Your task to perform on an android device: turn notification dots off Image 0: 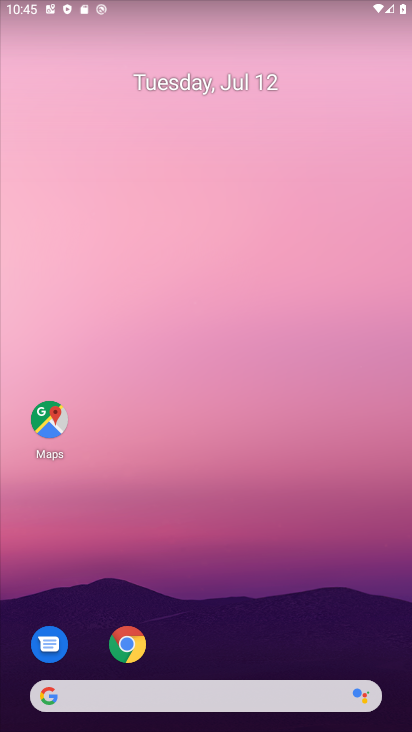
Step 0: drag from (235, 654) to (252, 22)
Your task to perform on an android device: turn notification dots off Image 1: 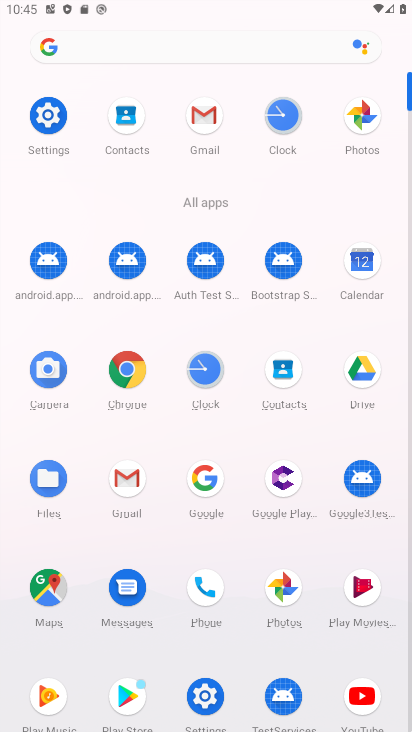
Step 1: click (47, 109)
Your task to perform on an android device: turn notification dots off Image 2: 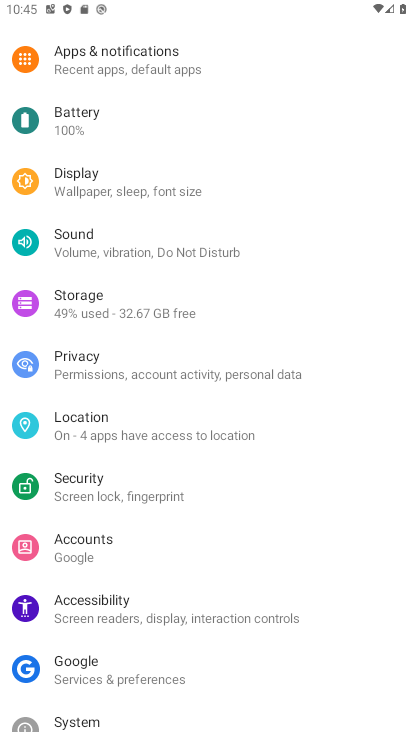
Step 2: click (185, 62)
Your task to perform on an android device: turn notification dots off Image 3: 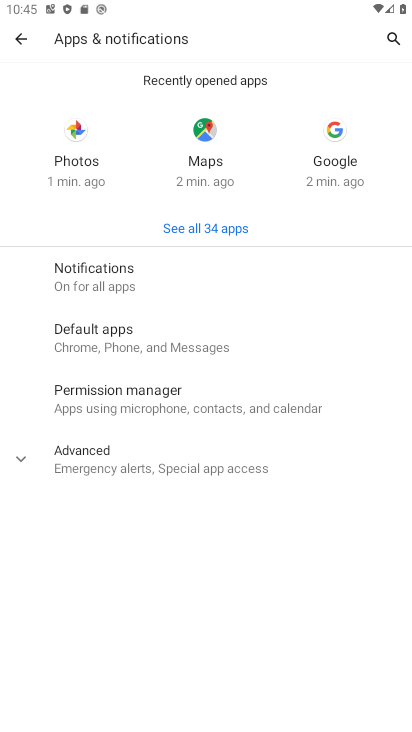
Step 3: click (151, 276)
Your task to perform on an android device: turn notification dots off Image 4: 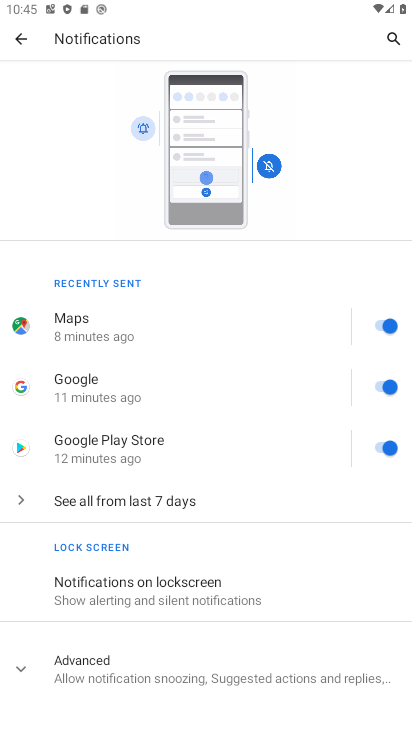
Step 4: drag from (203, 622) to (199, 227)
Your task to perform on an android device: turn notification dots off Image 5: 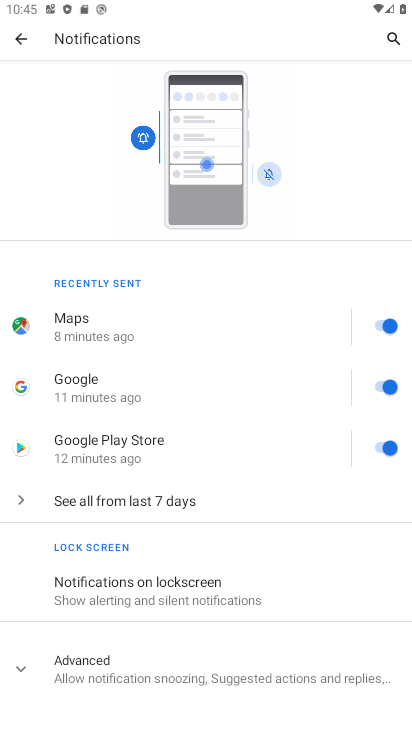
Step 5: click (22, 662)
Your task to perform on an android device: turn notification dots off Image 6: 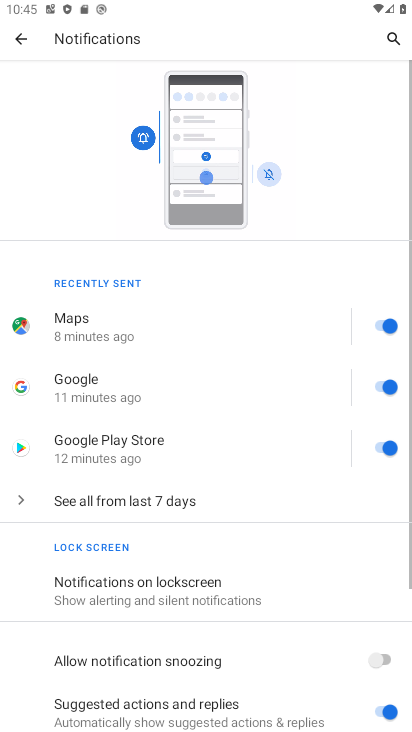
Step 6: drag from (205, 684) to (199, 167)
Your task to perform on an android device: turn notification dots off Image 7: 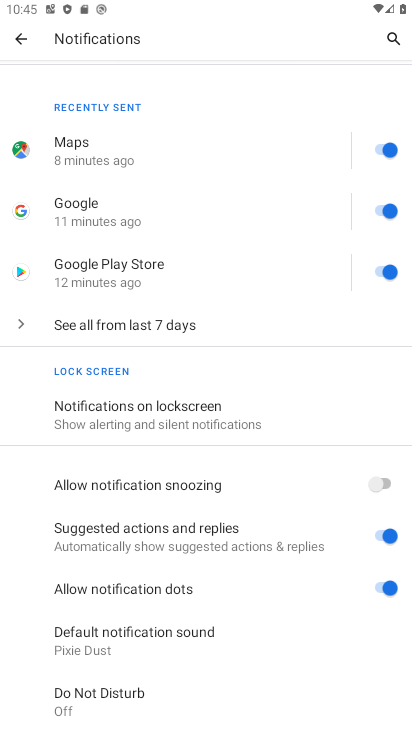
Step 7: click (381, 585)
Your task to perform on an android device: turn notification dots off Image 8: 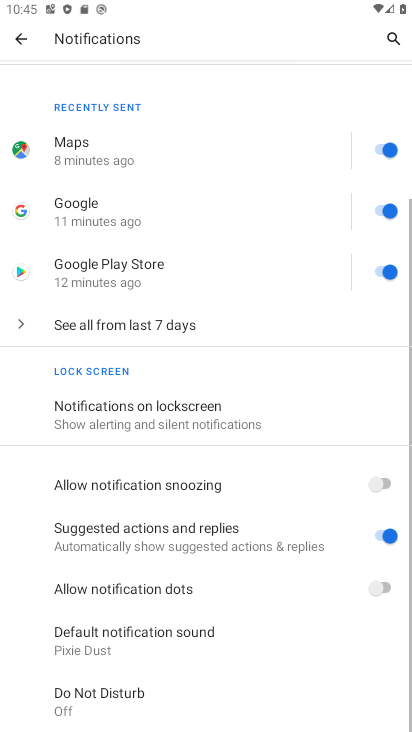
Step 8: task complete